Your task to perform on an android device: find which apps use the phone's location Image 0: 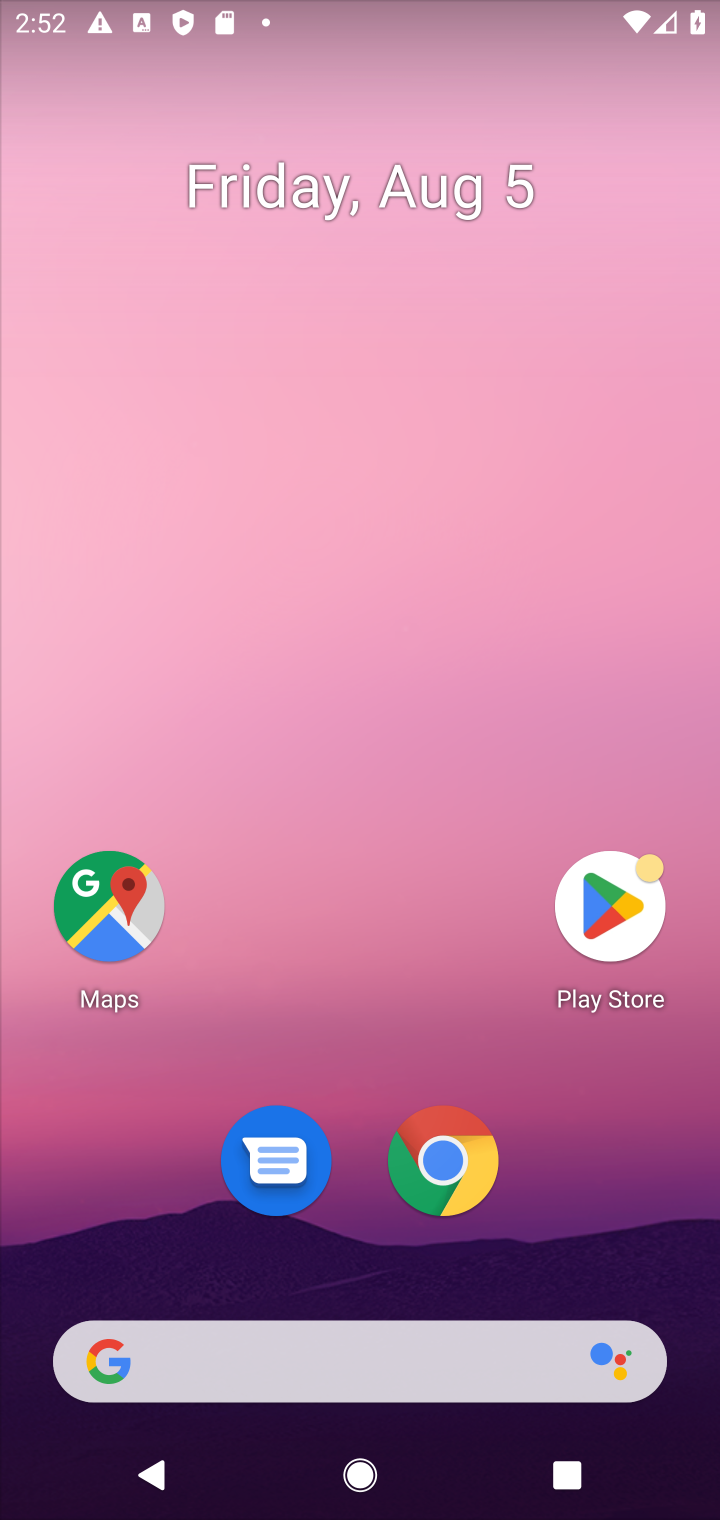
Step 0: drag from (350, 880) to (350, 364)
Your task to perform on an android device: find which apps use the phone's location Image 1: 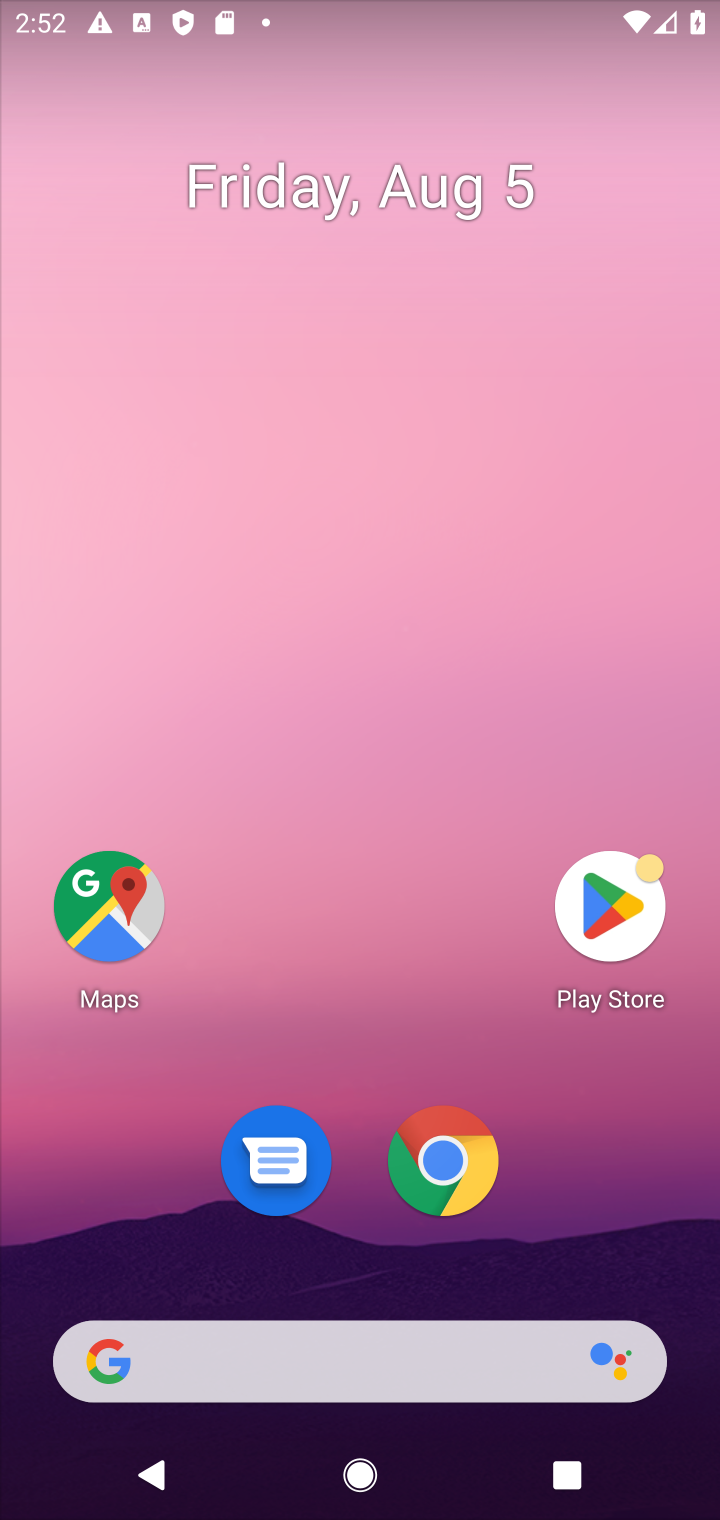
Step 1: drag from (353, 1135) to (331, 387)
Your task to perform on an android device: find which apps use the phone's location Image 2: 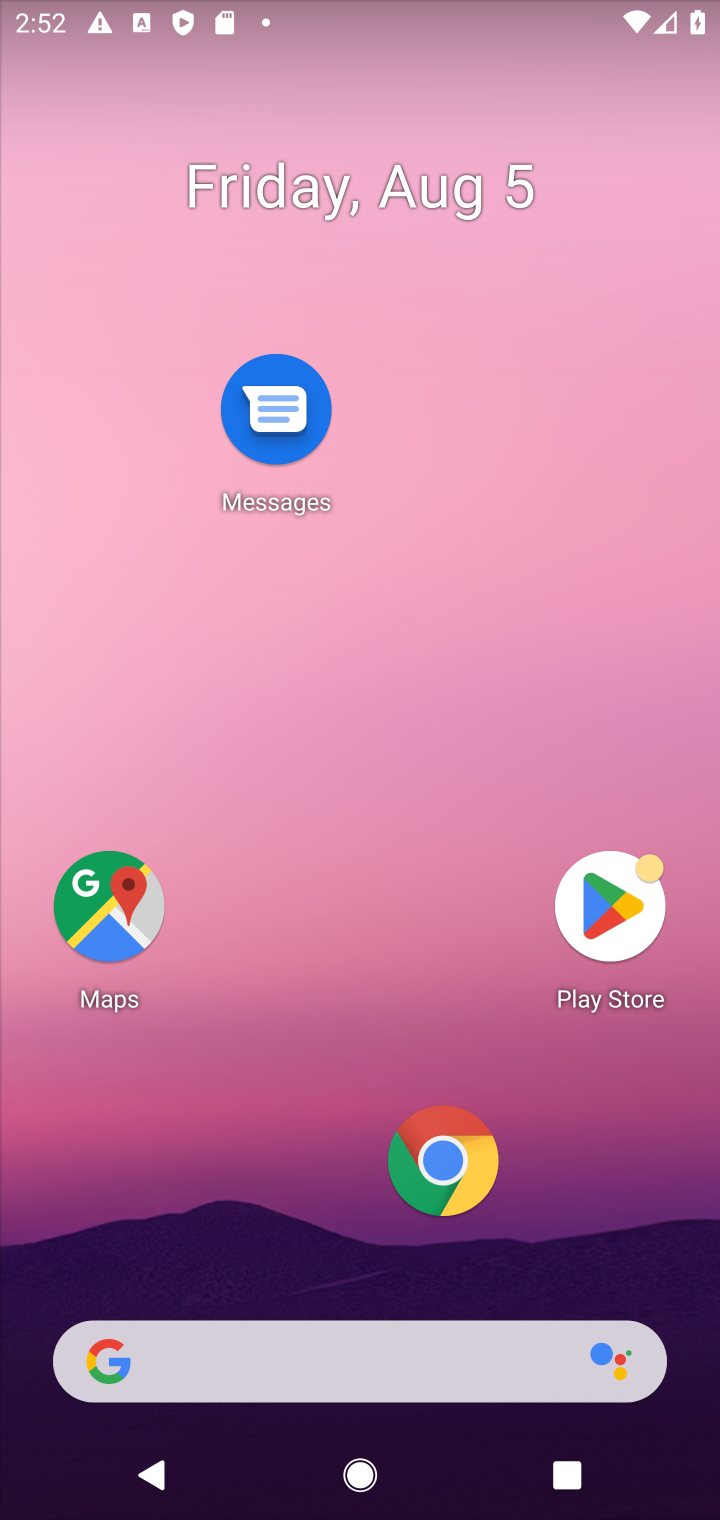
Step 2: drag from (305, 1228) to (433, 346)
Your task to perform on an android device: find which apps use the phone's location Image 3: 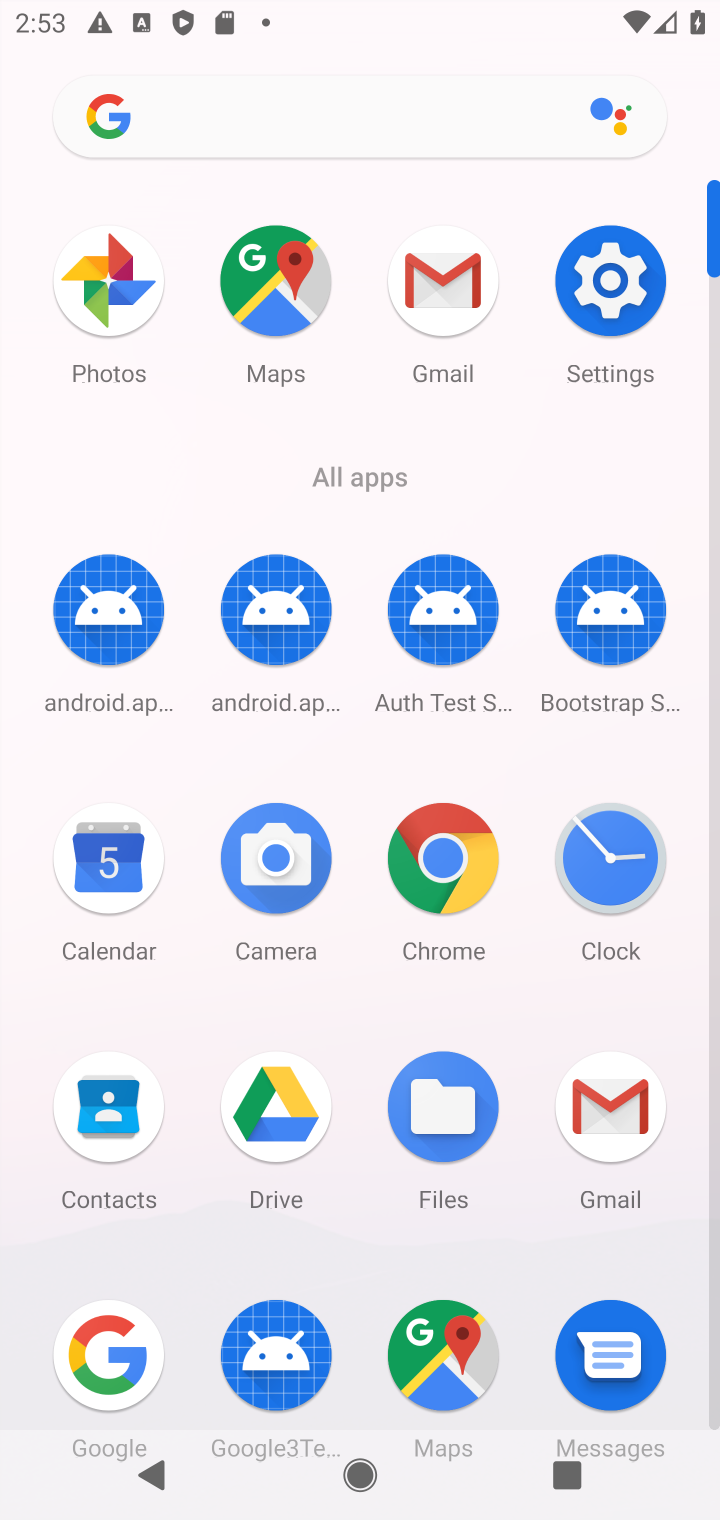
Step 3: click (574, 322)
Your task to perform on an android device: find which apps use the phone's location Image 4: 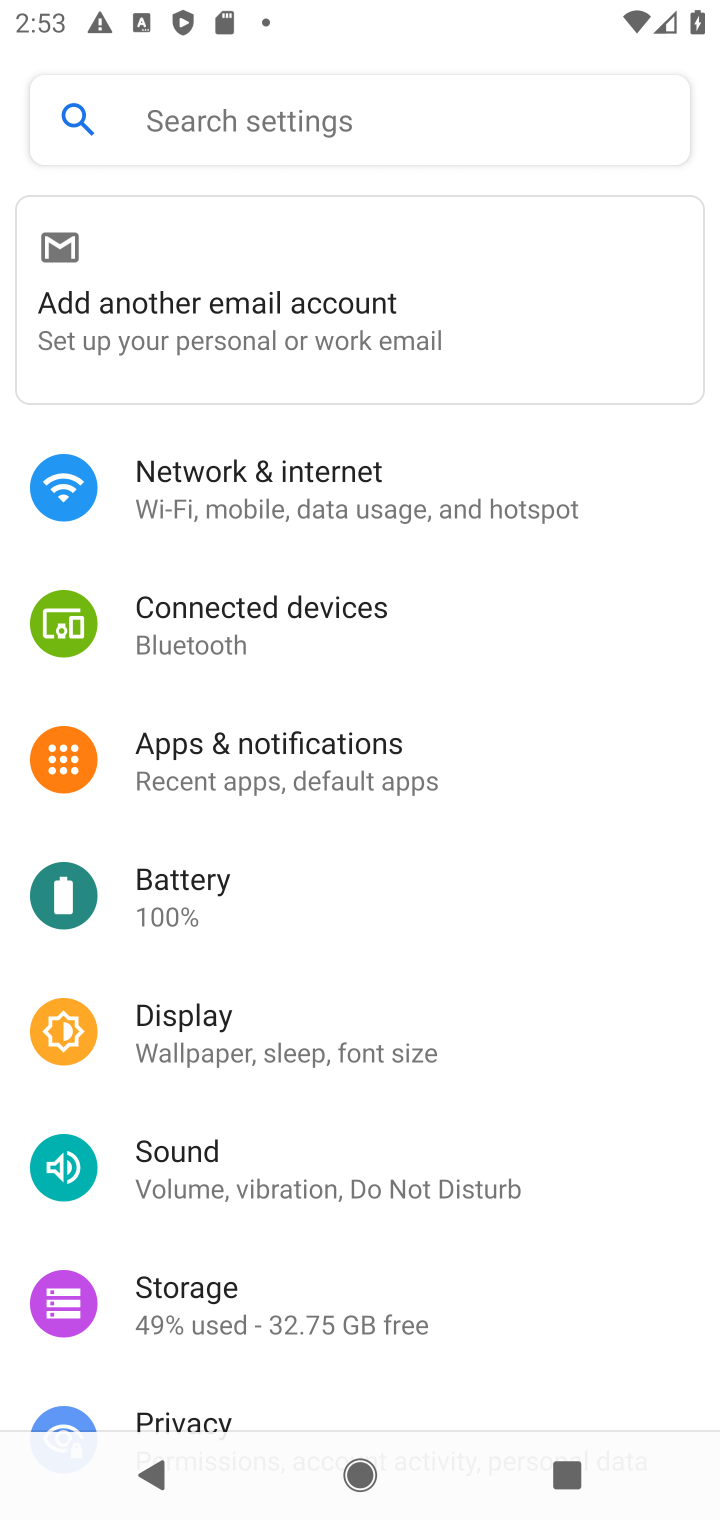
Step 4: drag from (254, 1301) to (341, 521)
Your task to perform on an android device: find which apps use the phone's location Image 5: 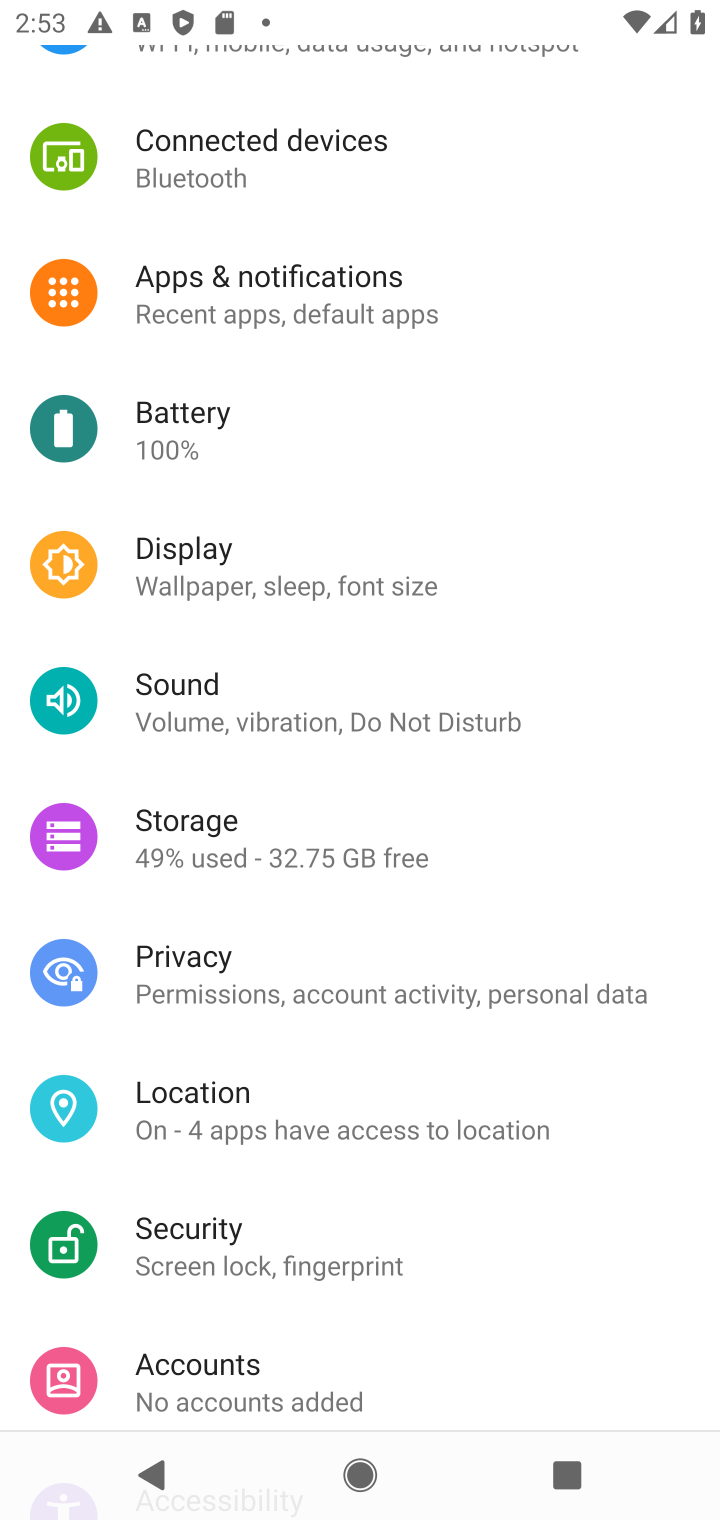
Step 5: click (289, 1132)
Your task to perform on an android device: find which apps use the phone's location Image 6: 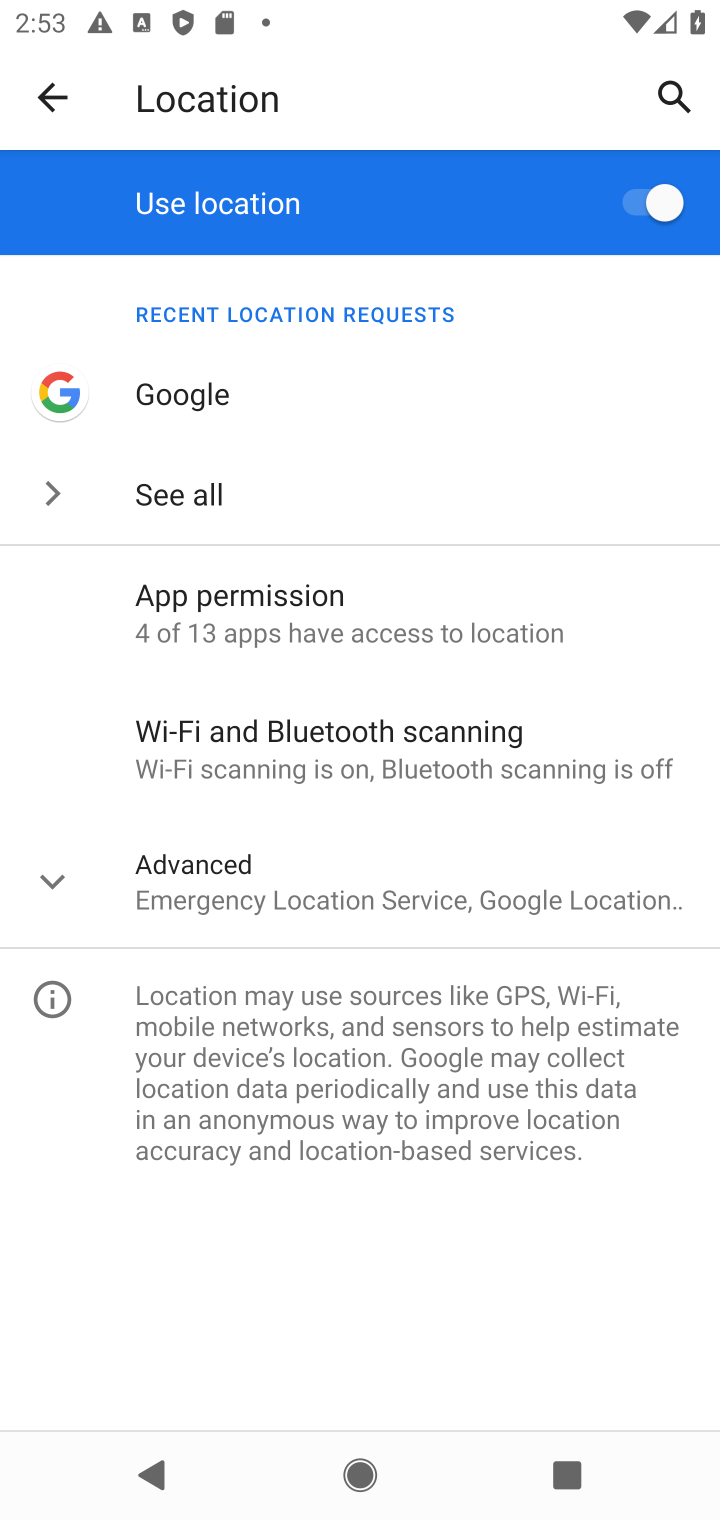
Step 6: click (303, 624)
Your task to perform on an android device: find which apps use the phone's location Image 7: 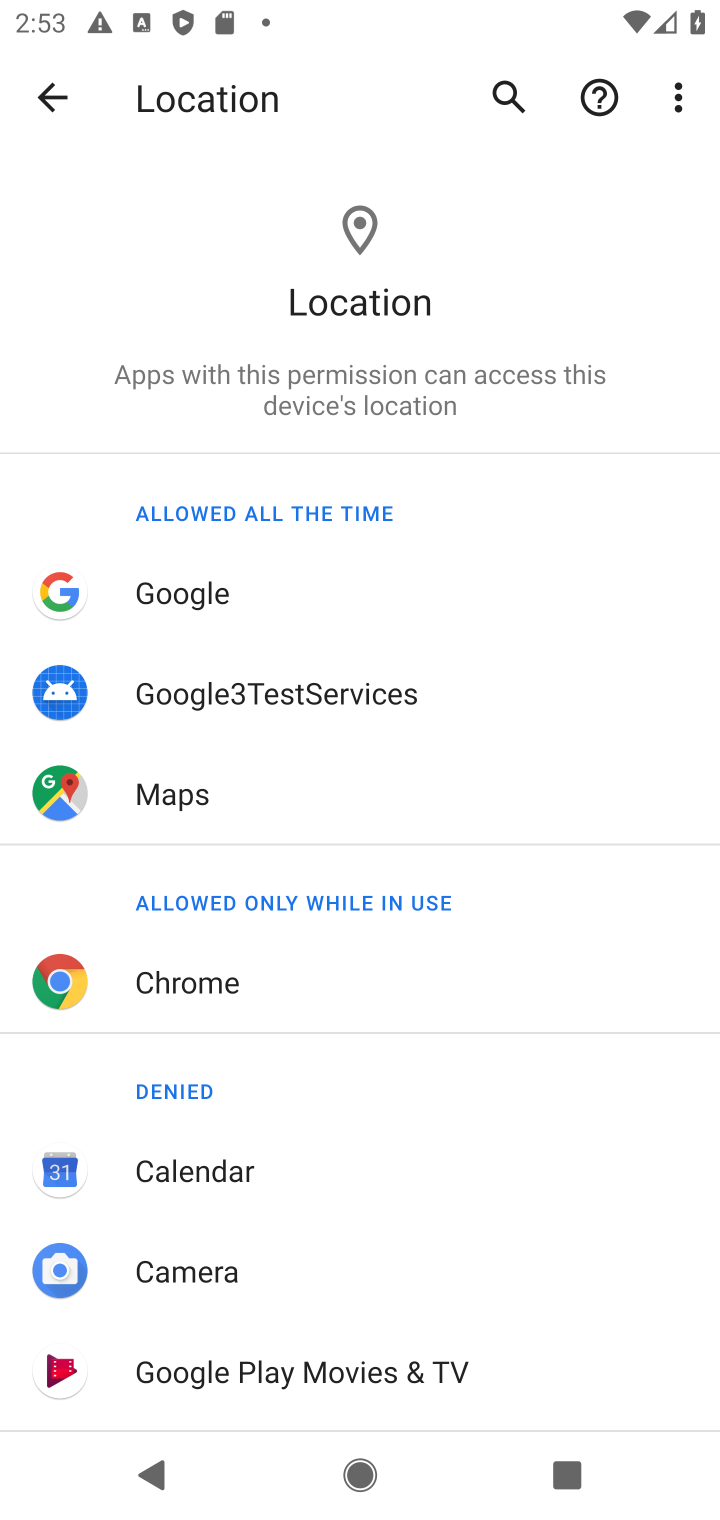
Step 7: task complete